Your task to perform on an android device: Search for "energizer triple a" on ebay.com, select the first entry, and add it to the cart. Image 0: 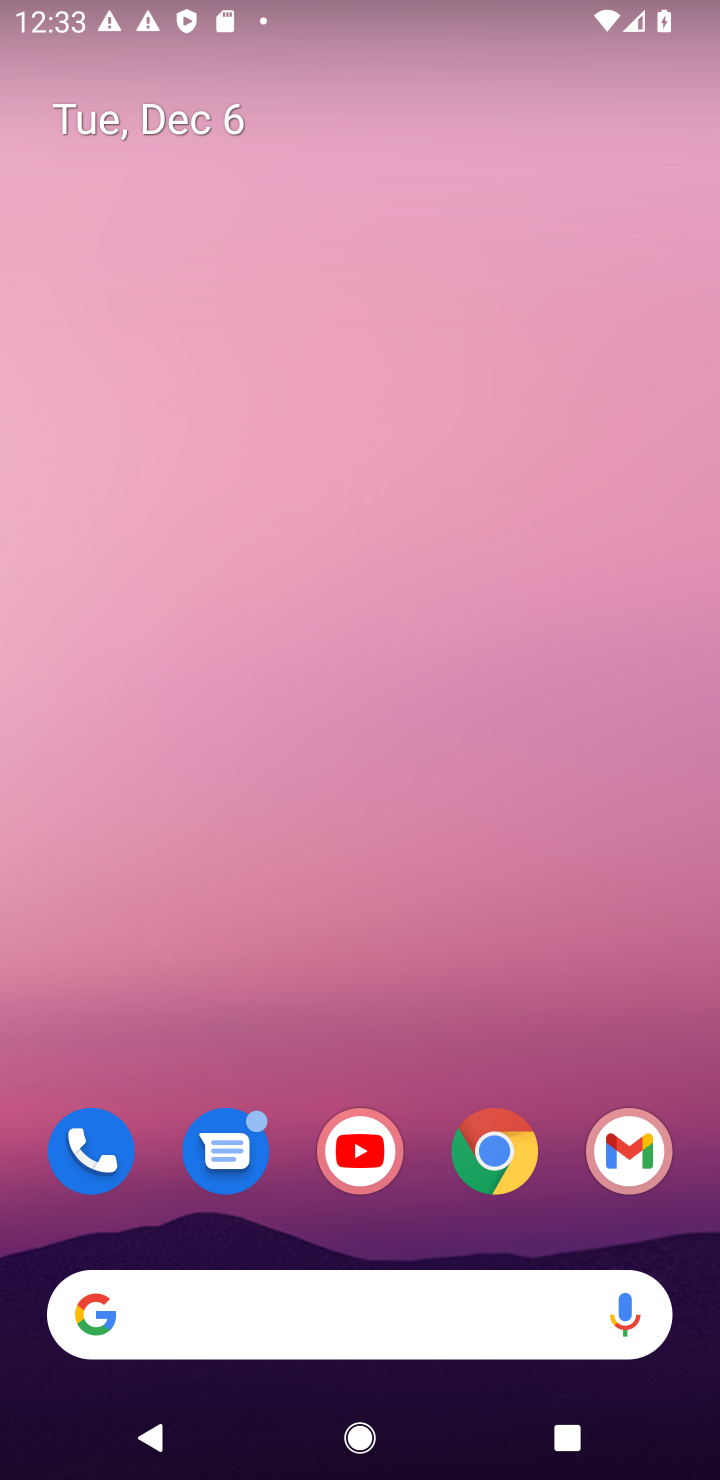
Step 0: click (508, 1155)
Your task to perform on an android device: Search for "energizer triple a" on ebay.com, select the first entry, and add it to the cart. Image 1: 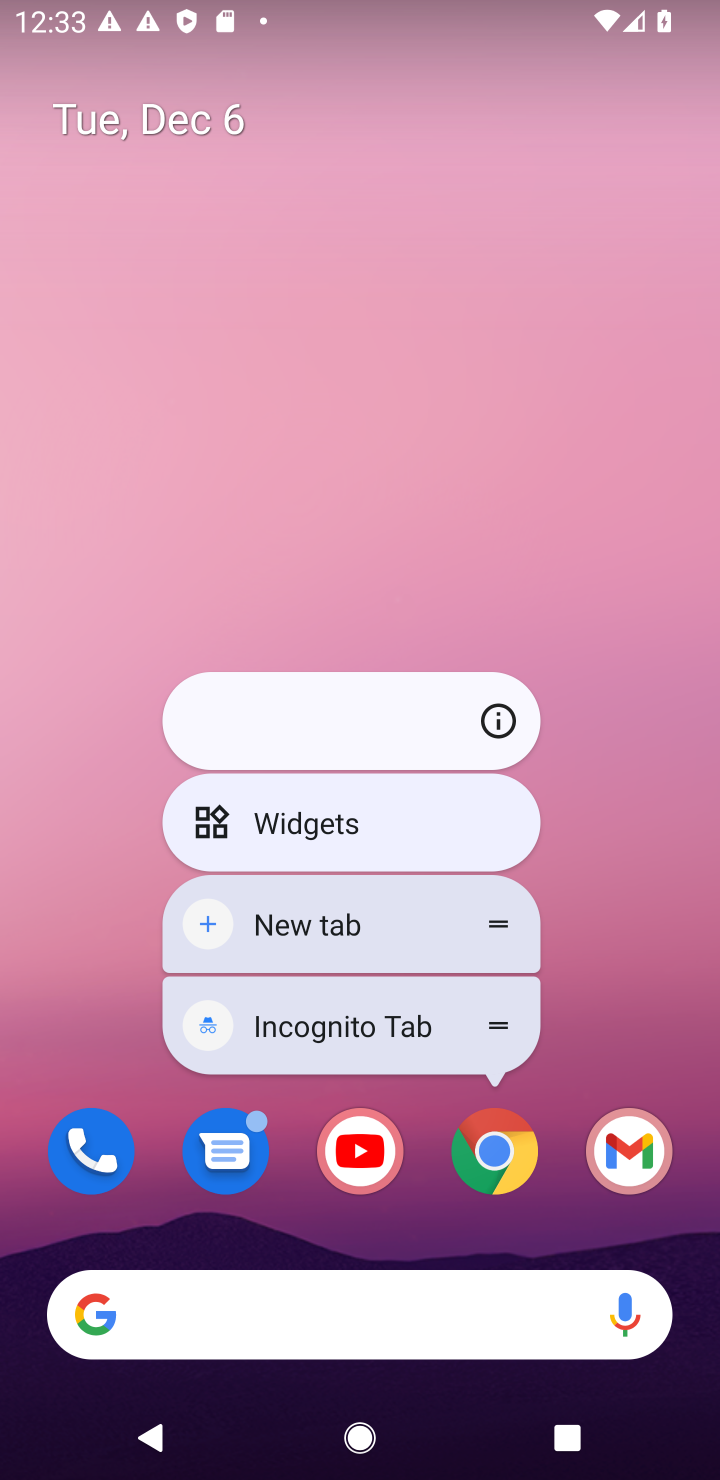
Step 1: click (490, 1156)
Your task to perform on an android device: Search for "energizer triple a" on ebay.com, select the first entry, and add it to the cart. Image 2: 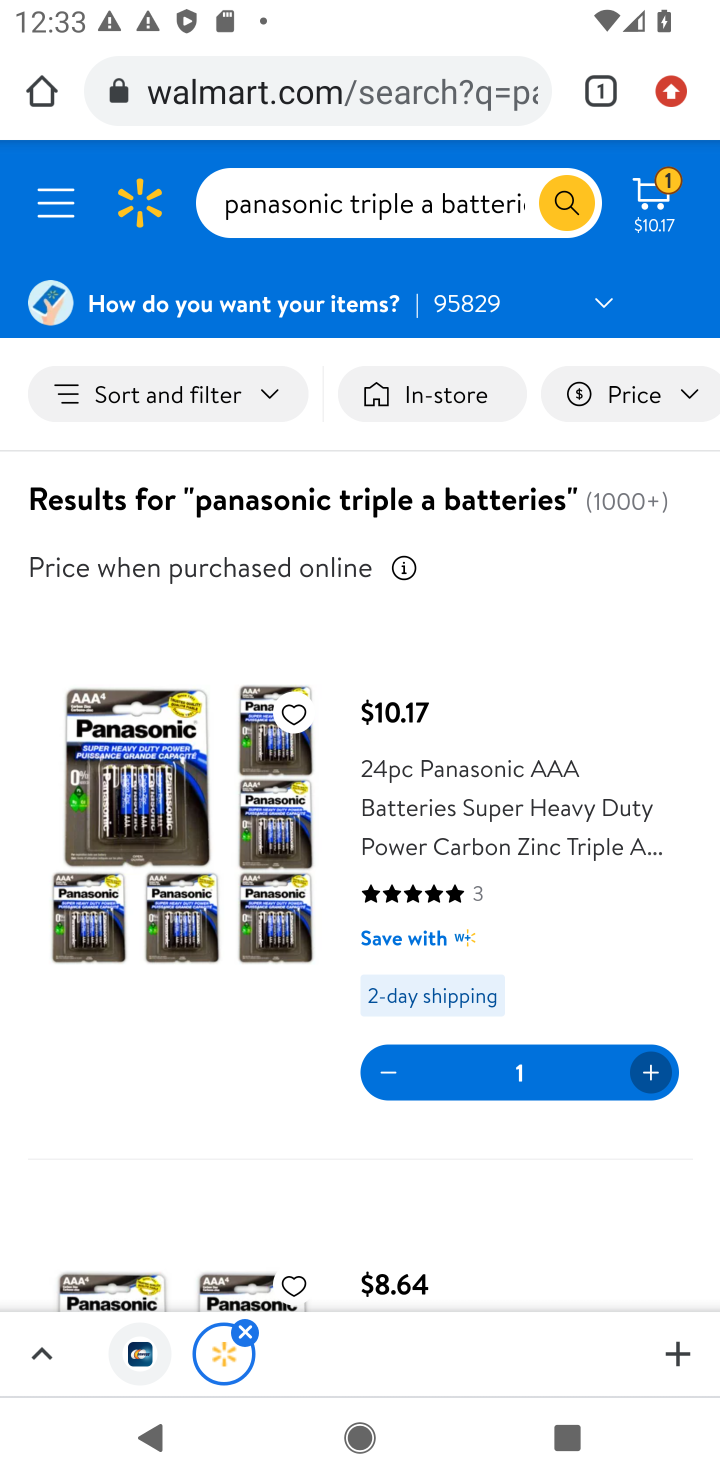
Step 2: click (201, 90)
Your task to perform on an android device: Search for "energizer triple a" on ebay.com, select the first entry, and add it to the cart. Image 3: 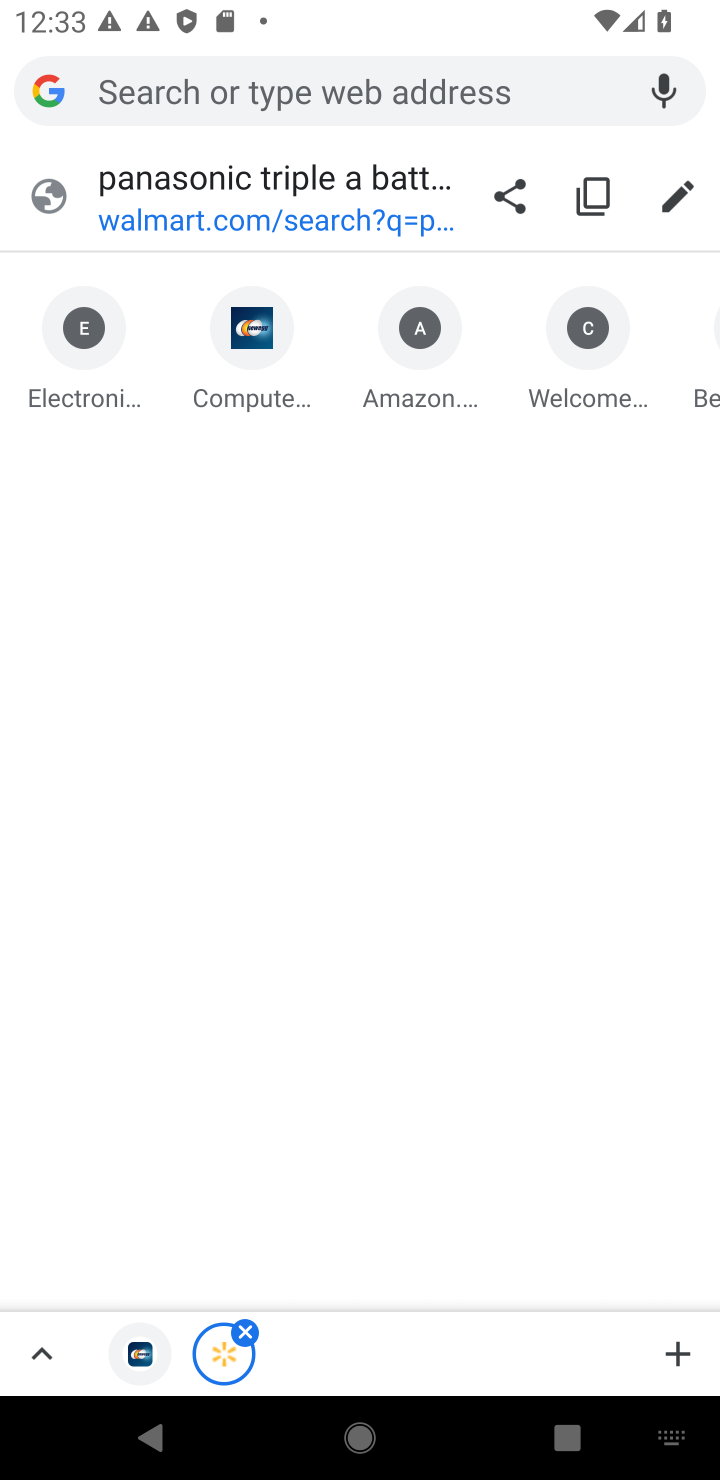
Step 3: type "ebay.com"
Your task to perform on an android device: Search for "energizer triple a" on ebay.com, select the first entry, and add it to the cart. Image 4: 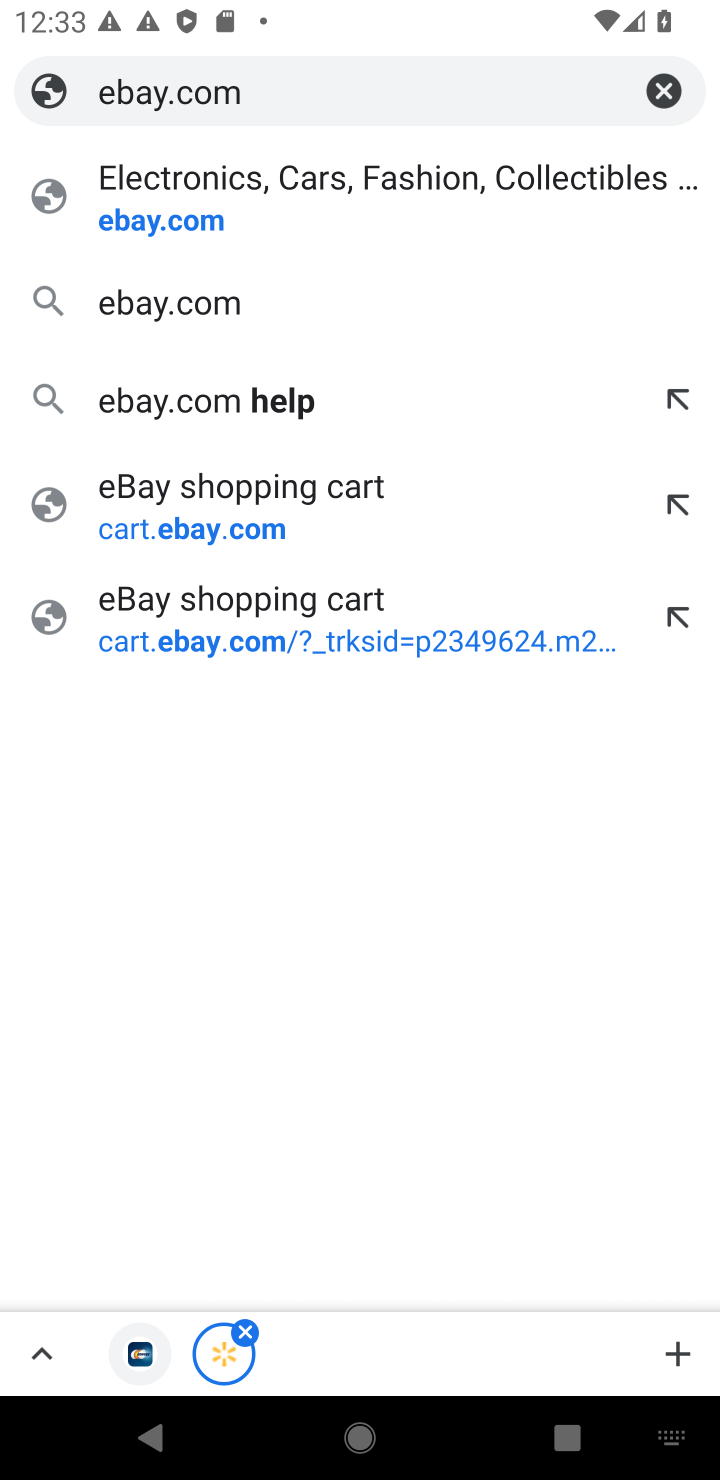
Step 4: click (150, 207)
Your task to perform on an android device: Search for "energizer triple a" on ebay.com, select the first entry, and add it to the cart. Image 5: 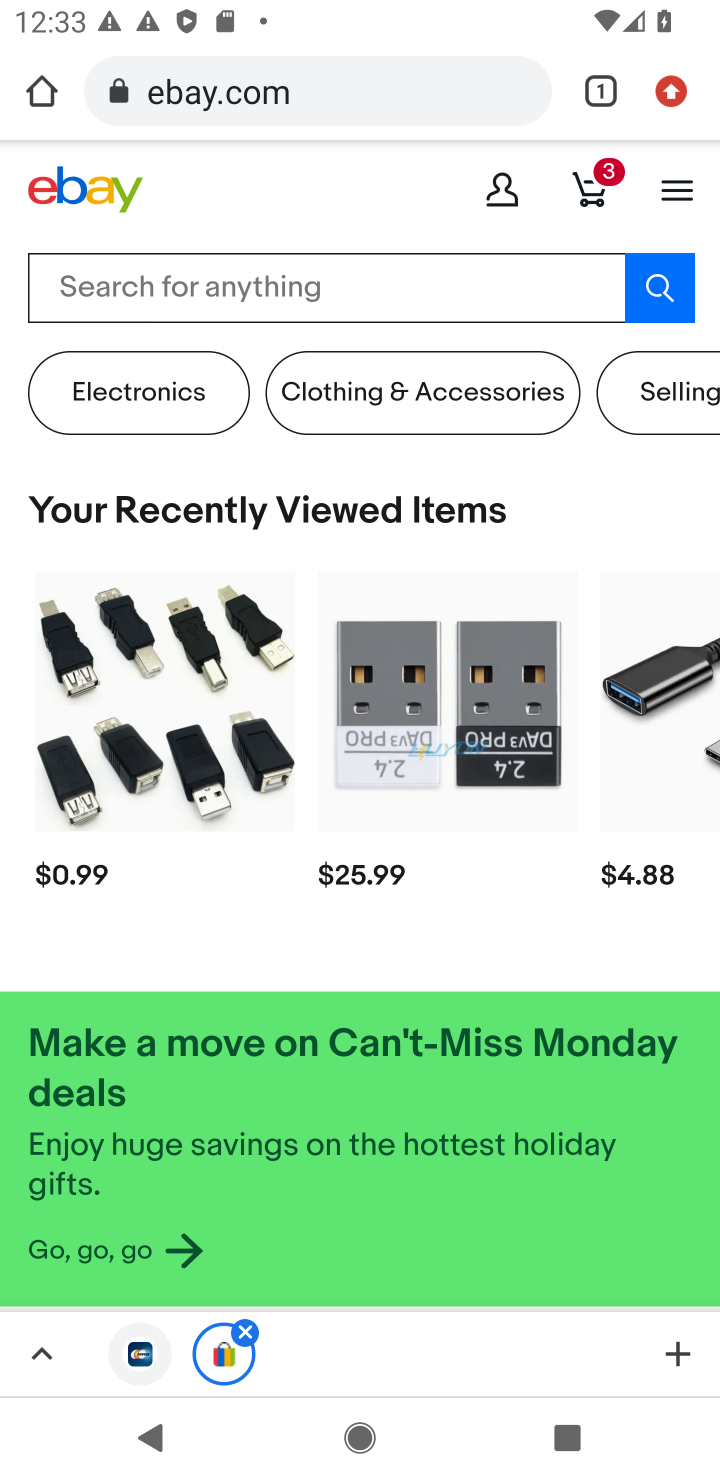
Step 5: click (86, 283)
Your task to perform on an android device: Search for "energizer triple a" on ebay.com, select the first entry, and add it to the cart. Image 6: 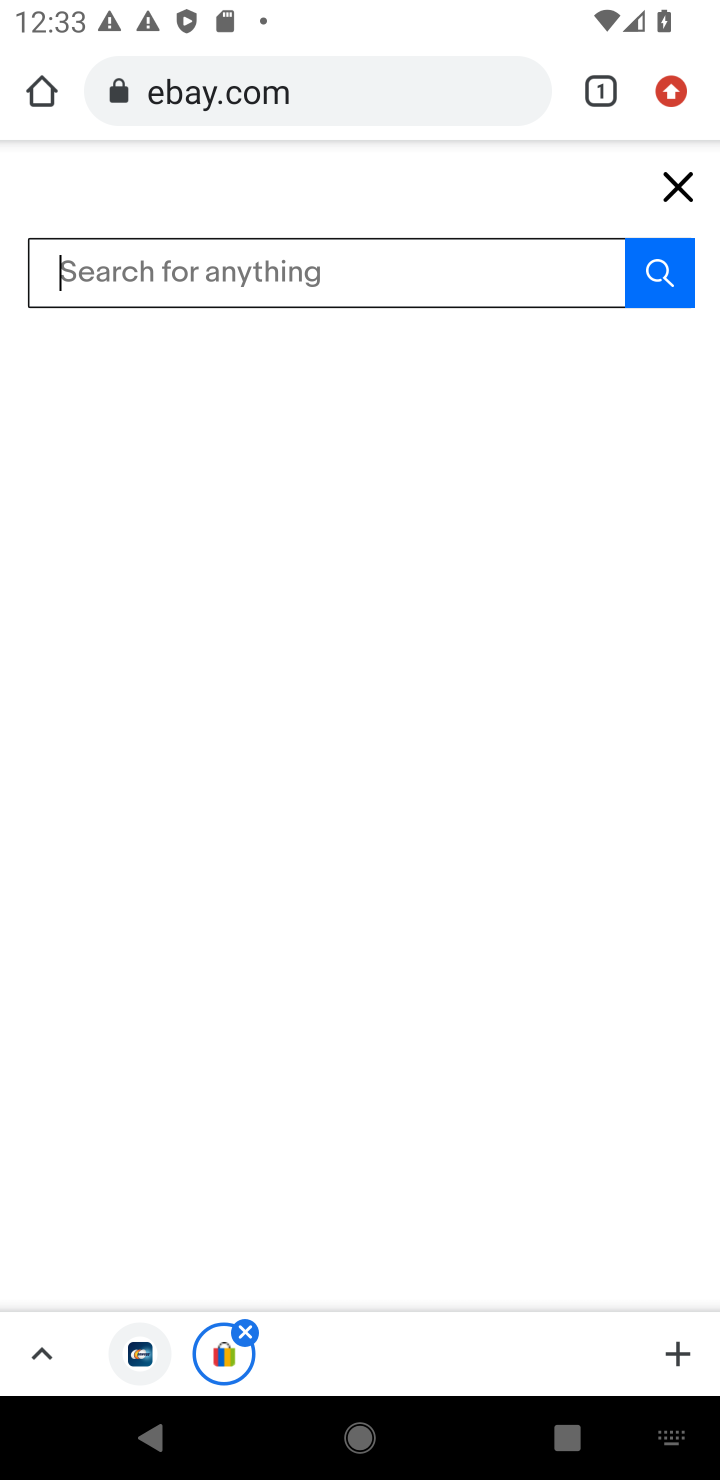
Step 6: type "energizer triple a"
Your task to perform on an android device: Search for "energizer triple a" on ebay.com, select the first entry, and add it to the cart. Image 7: 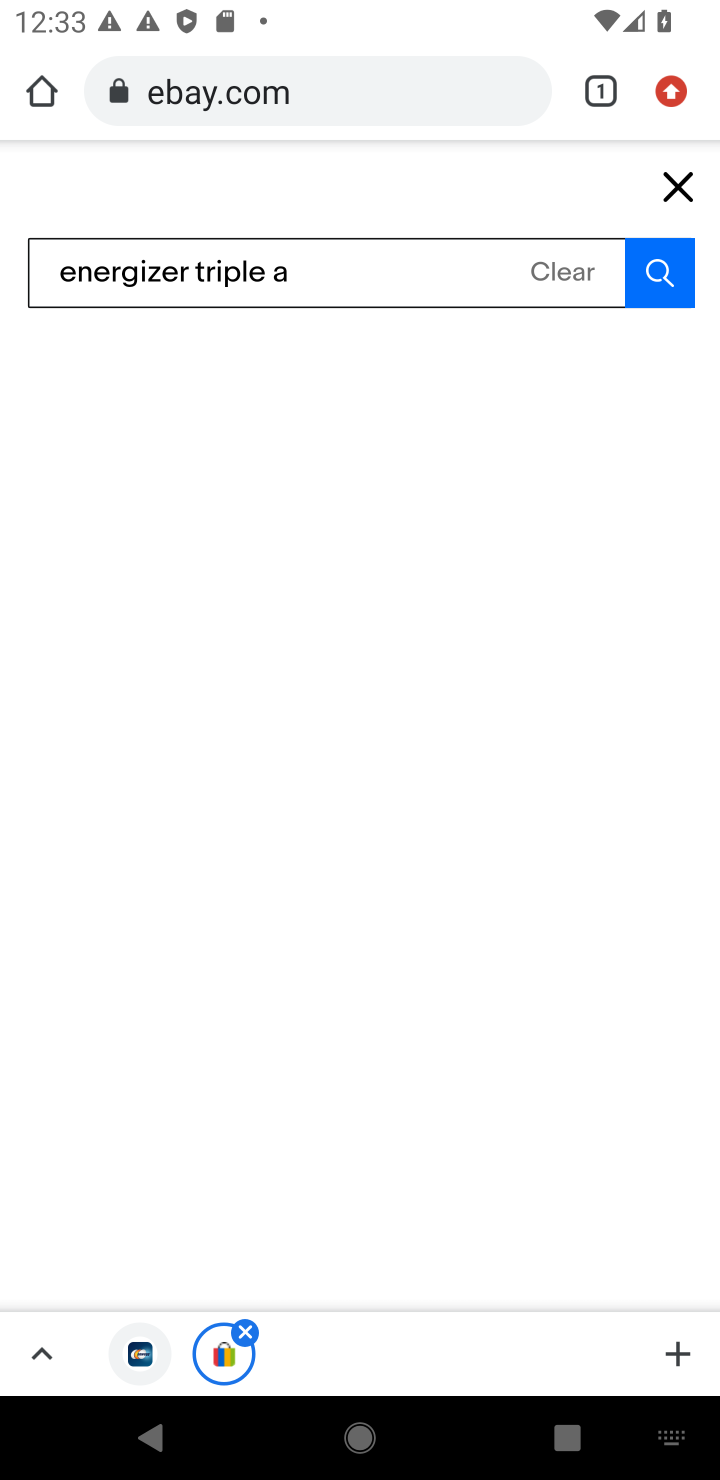
Step 7: click (645, 276)
Your task to perform on an android device: Search for "energizer triple a" on ebay.com, select the first entry, and add it to the cart. Image 8: 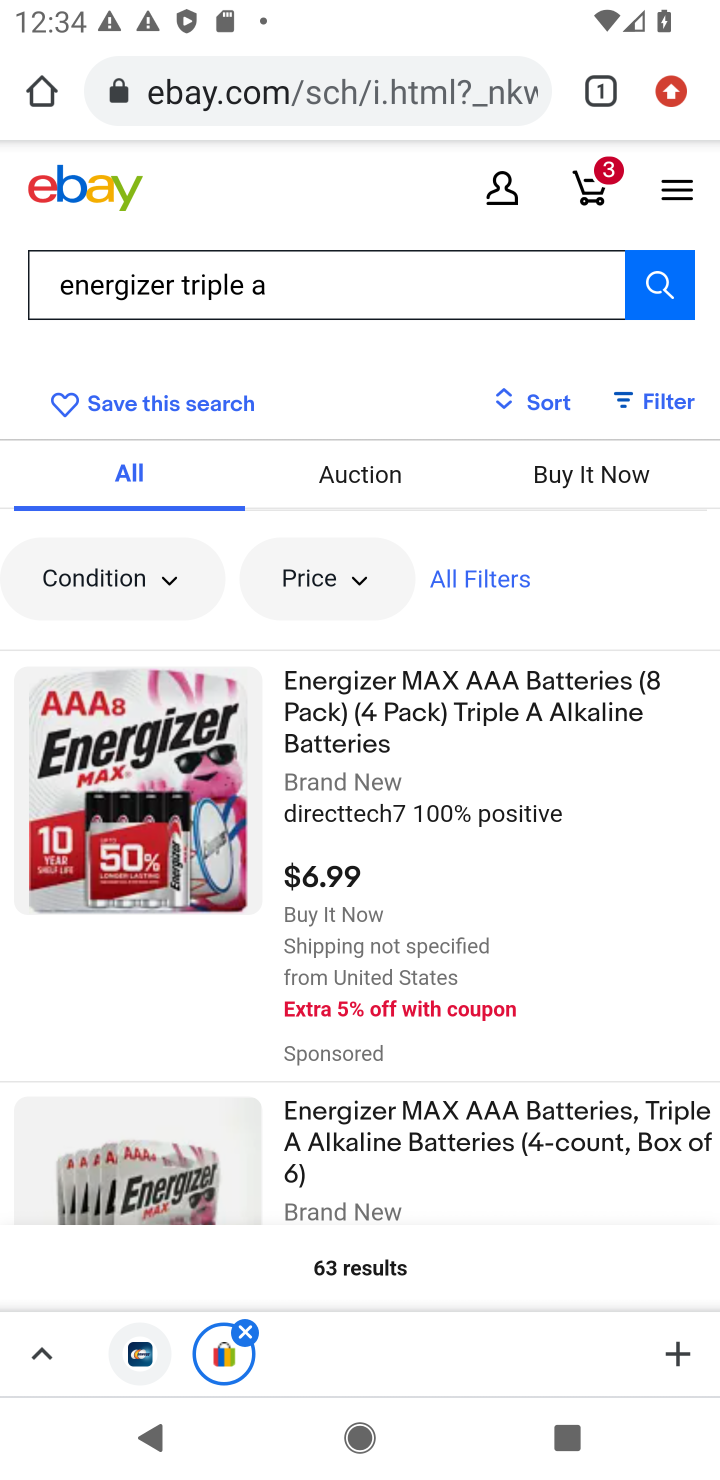
Step 8: click (374, 719)
Your task to perform on an android device: Search for "energizer triple a" on ebay.com, select the first entry, and add it to the cart. Image 9: 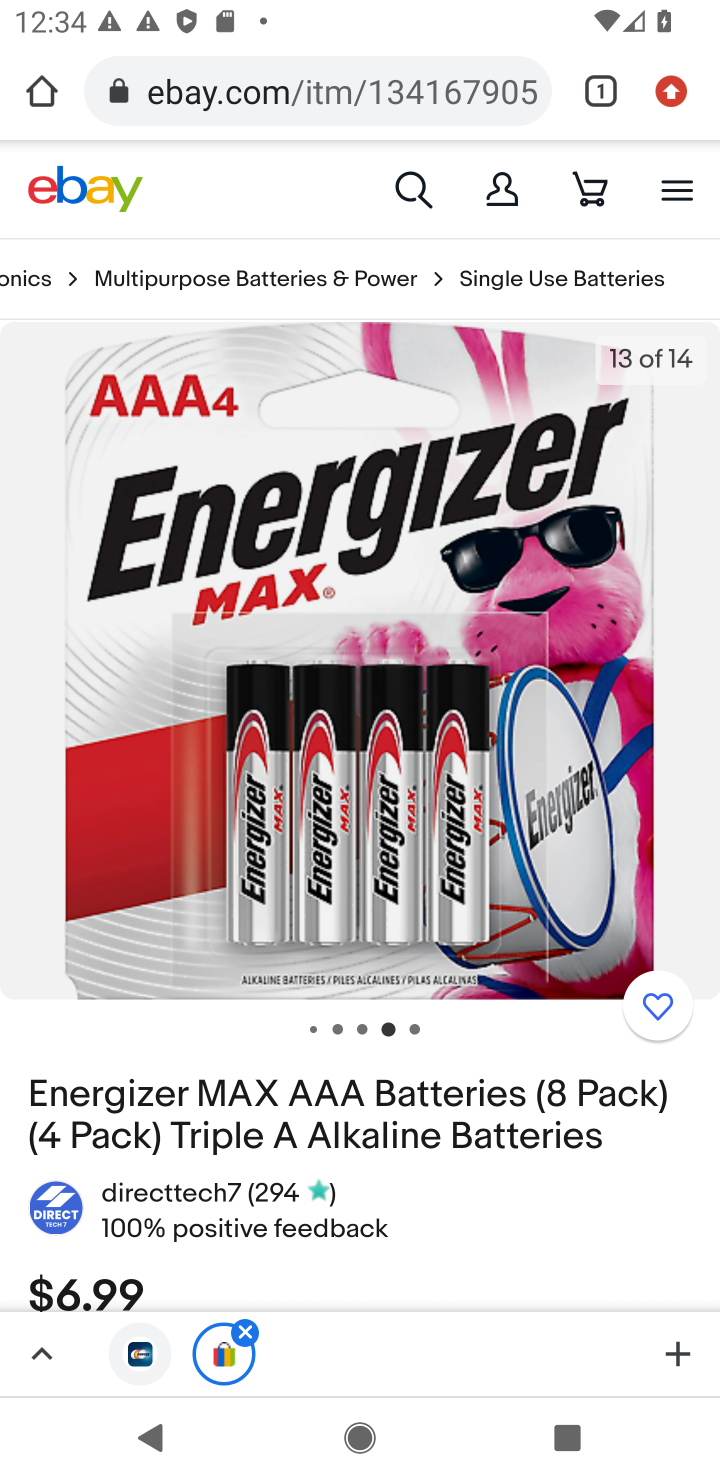
Step 9: drag from (391, 936) to (373, 476)
Your task to perform on an android device: Search for "energizer triple a" on ebay.com, select the first entry, and add it to the cart. Image 10: 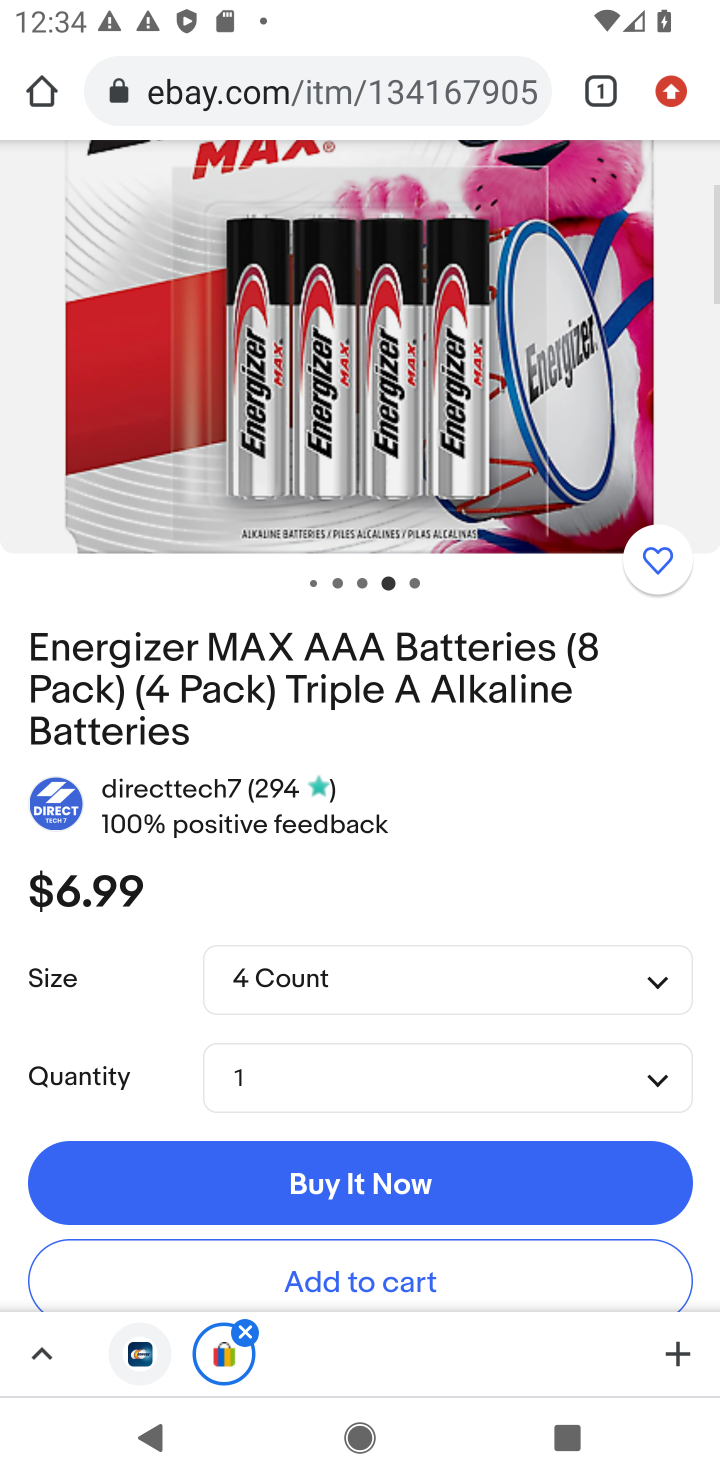
Step 10: drag from (374, 1022) to (361, 482)
Your task to perform on an android device: Search for "energizer triple a" on ebay.com, select the first entry, and add it to the cart. Image 11: 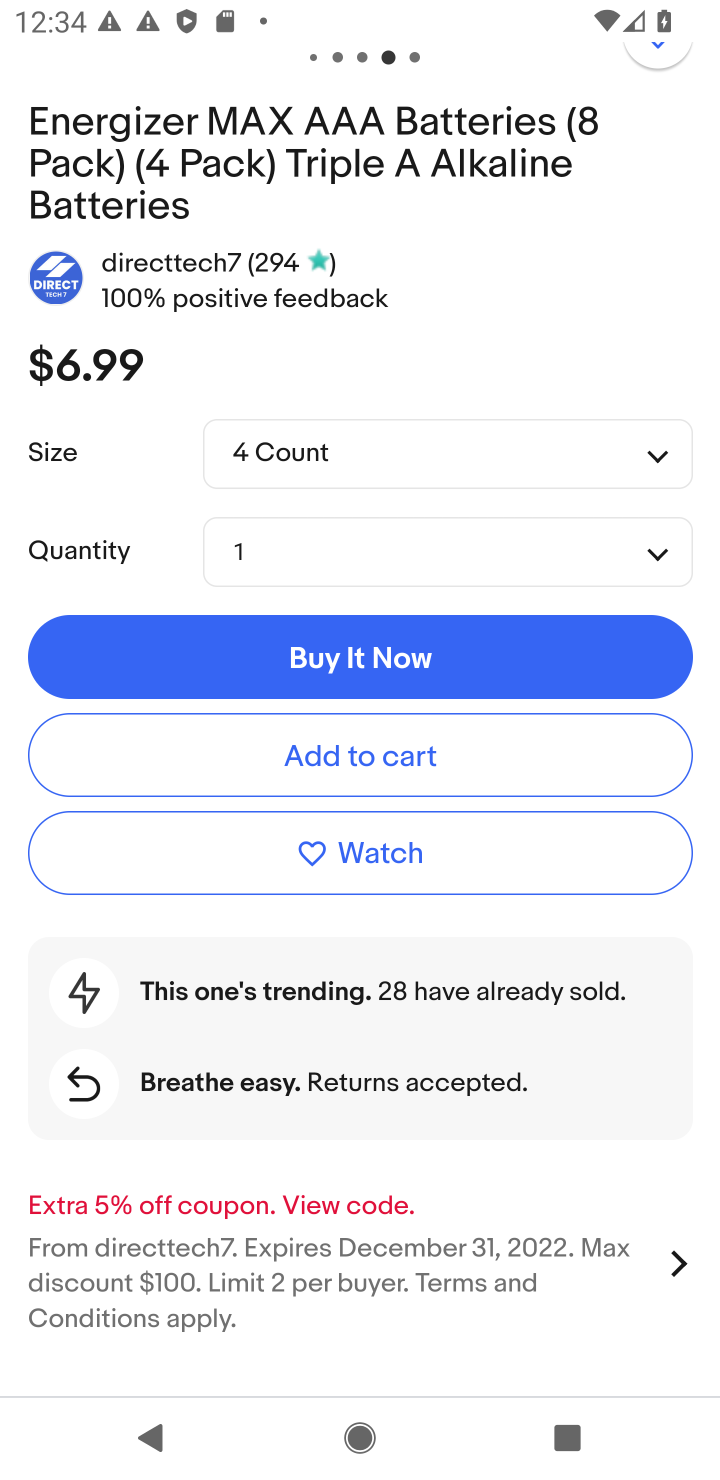
Step 11: click (323, 757)
Your task to perform on an android device: Search for "energizer triple a" on ebay.com, select the first entry, and add it to the cart. Image 12: 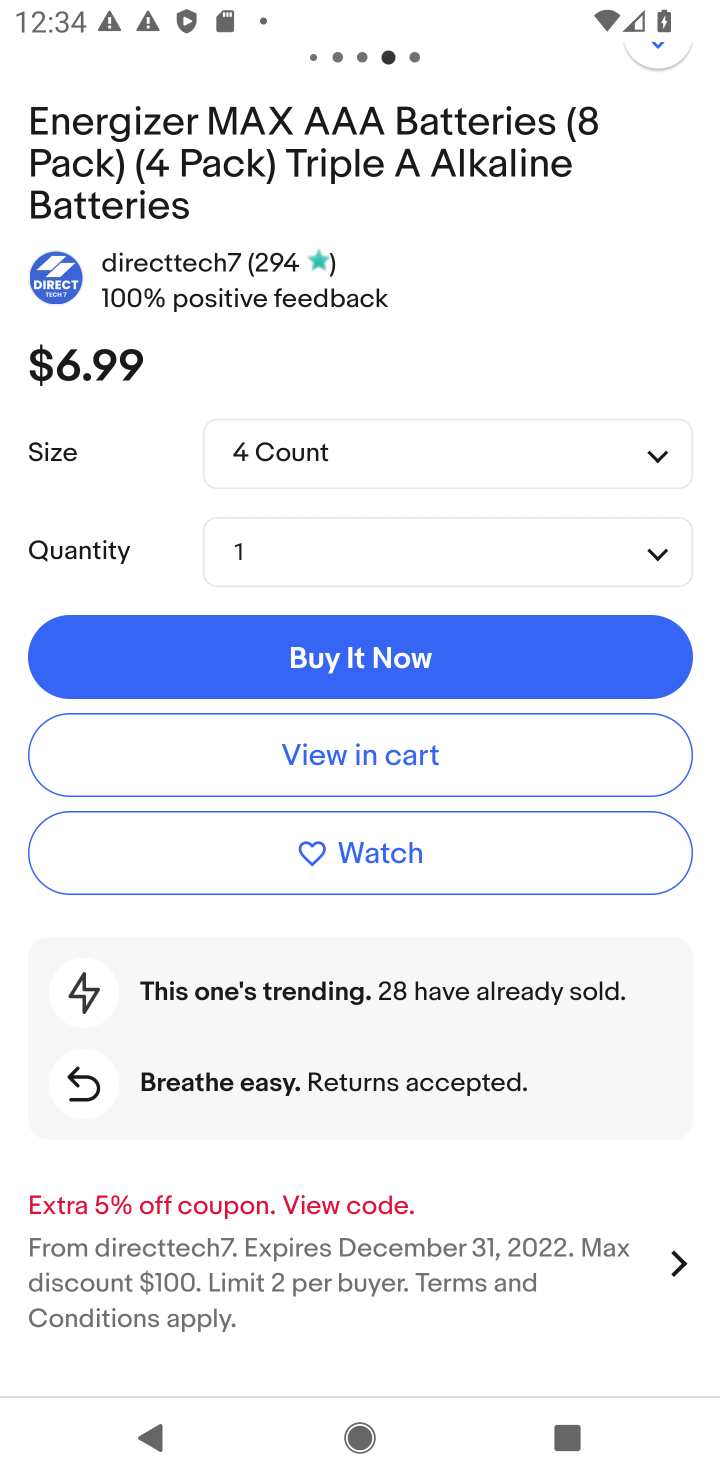
Step 12: task complete